Your task to perform on an android device: choose inbox layout in the gmail app Image 0: 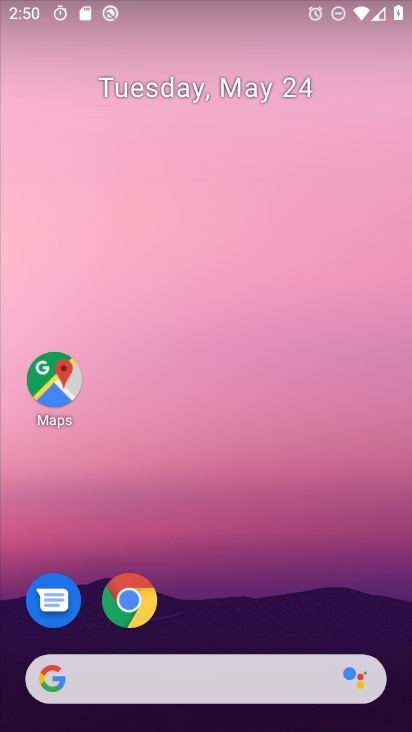
Step 0: drag from (317, 572) to (319, 140)
Your task to perform on an android device: choose inbox layout in the gmail app Image 1: 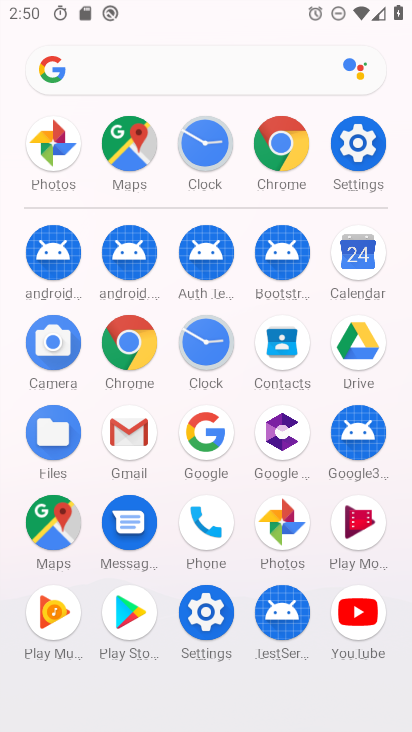
Step 1: click (116, 429)
Your task to perform on an android device: choose inbox layout in the gmail app Image 2: 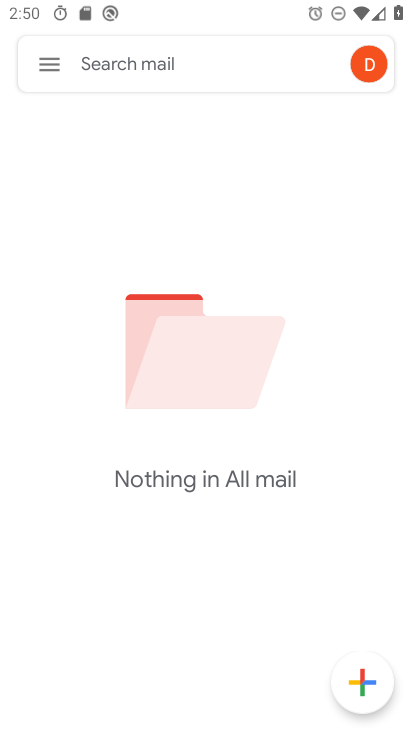
Step 2: click (46, 57)
Your task to perform on an android device: choose inbox layout in the gmail app Image 3: 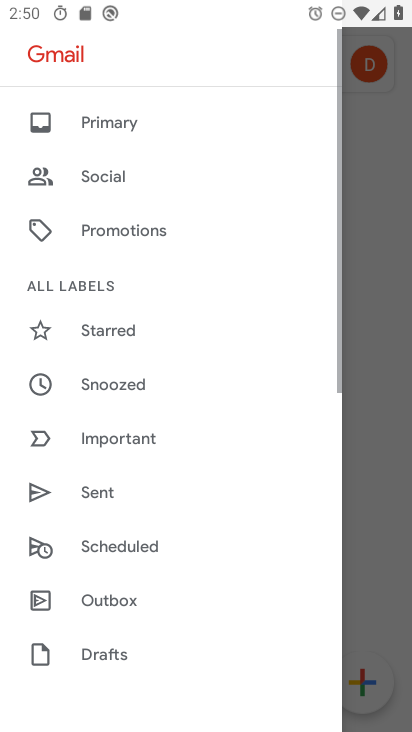
Step 3: drag from (156, 607) to (202, 188)
Your task to perform on an android device: choose inbox layout in the gmail app Image 4: 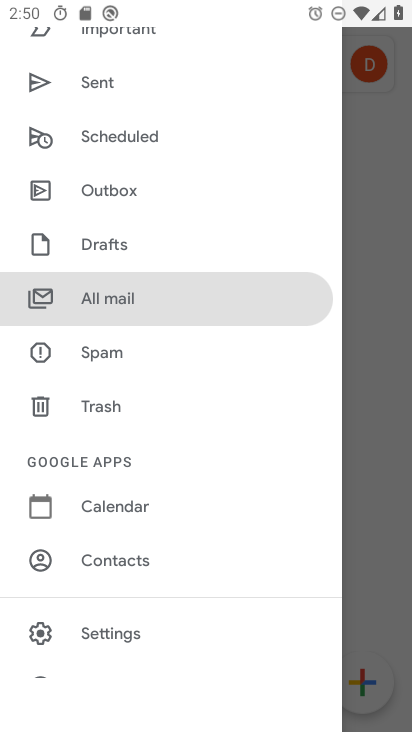
Step 4: click (111, 638)
Your task to perform on an android device: choose inbox layout in the gmail app Image 5: 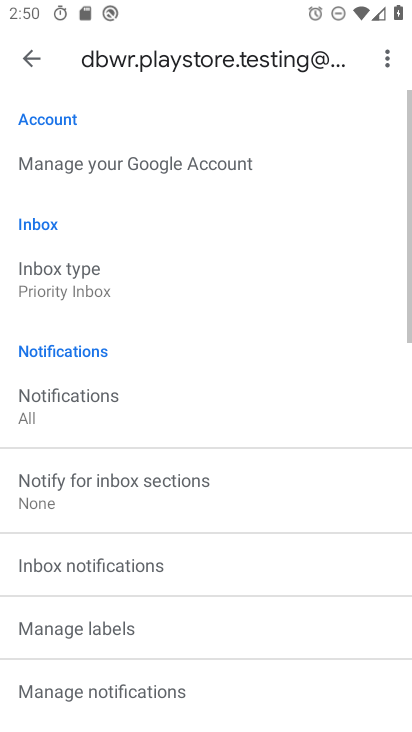
Step 5: click (89, 279)
Your task to perform on an android device: choose inbox layout in the gmail app Image 6: 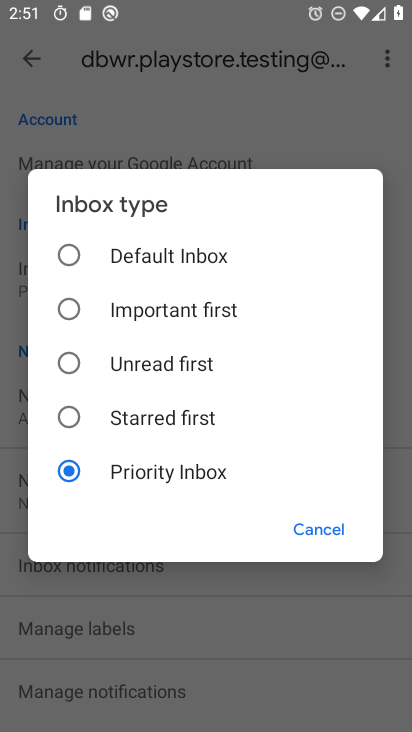
Step 6: task complete